Your task to perform on an android device: Open notification settings Image 0: 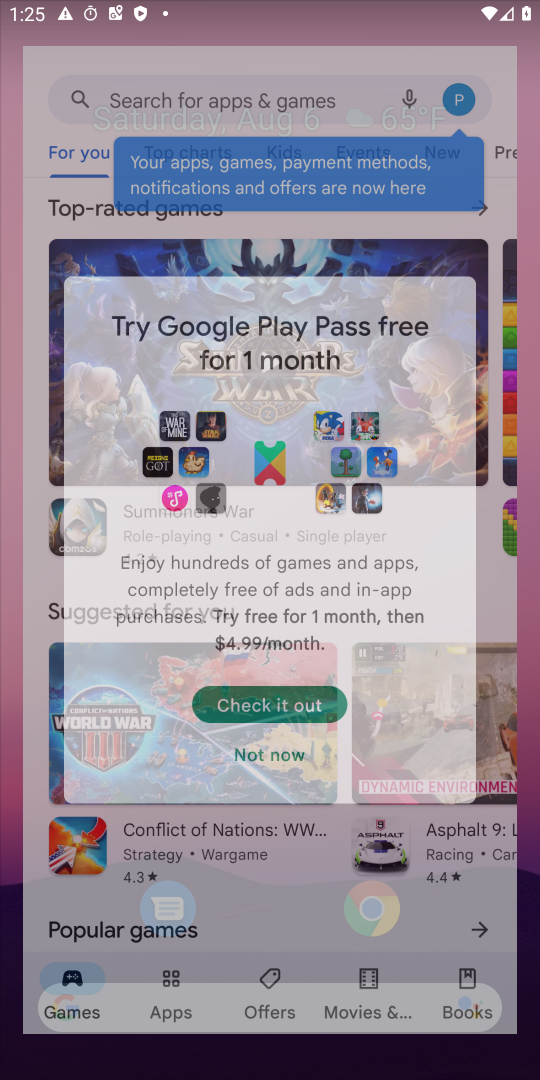
Step 0: press home button
Your task to perform on an android device: Open notification settings Image 1: 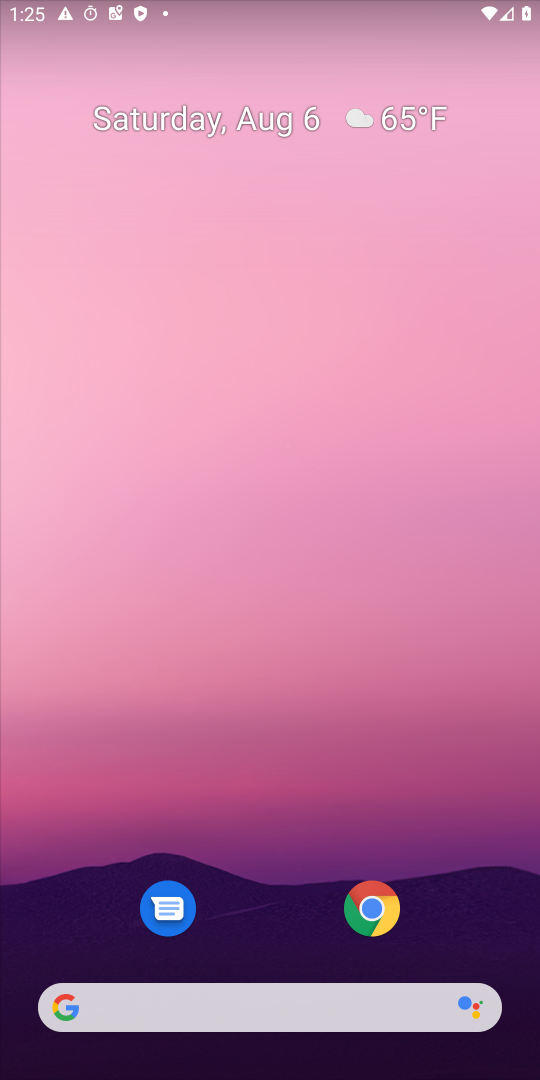
Step 1: drag from (238, 842) to (223, 115)
Your task to perform on an android device: Open notification settings Image 2: 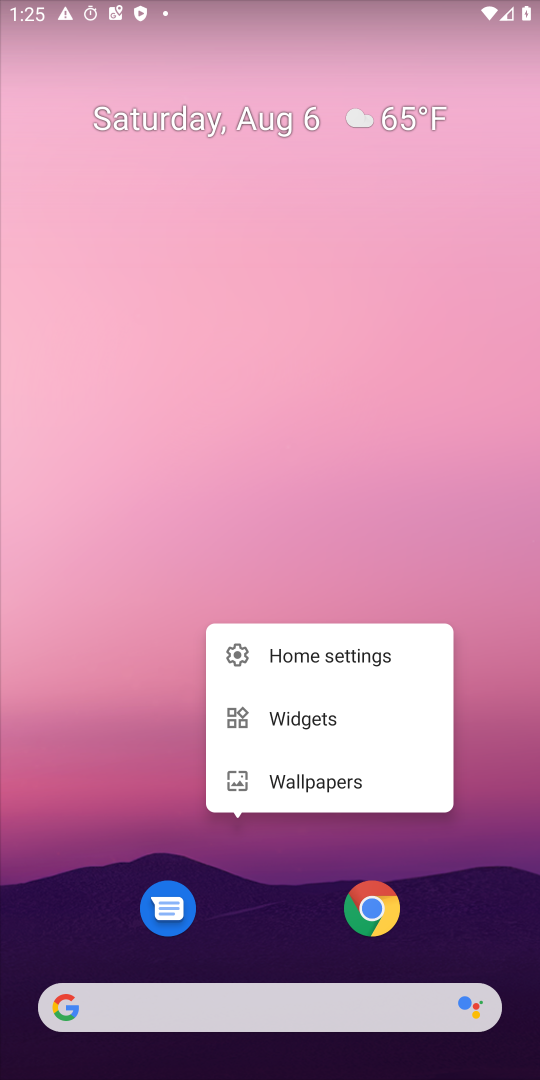
Step 2: click (306, 335)
Your task to perform on an android device: Open notification settings Image 3: 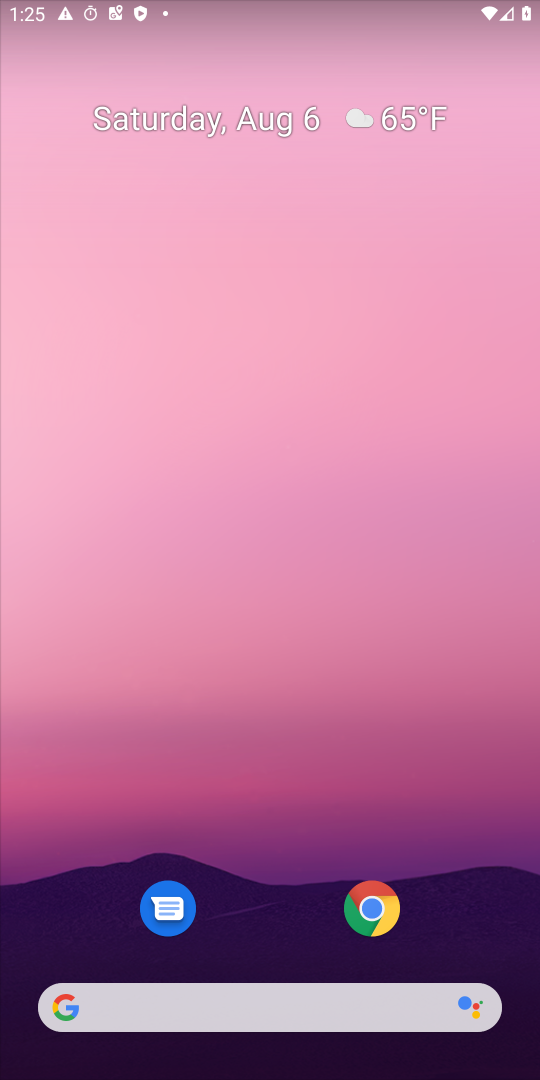
Step 3: drag from (248, 902) to (248, 48)
Your task to perform on an android device: Open notification settings Image 4: 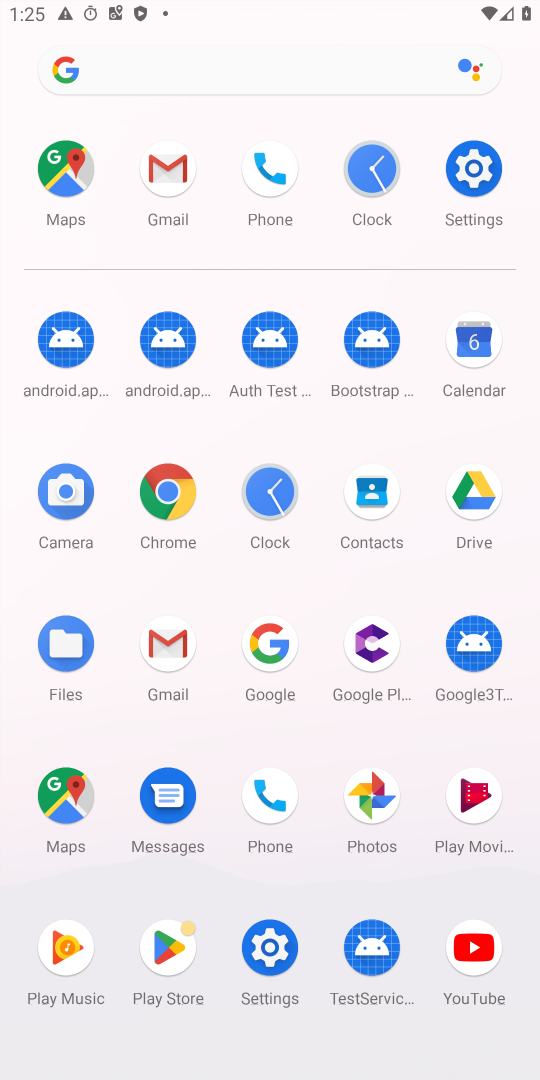
Step 4: click (272, 942)
Your task to perform on an android device: Open notification settings Image 5: 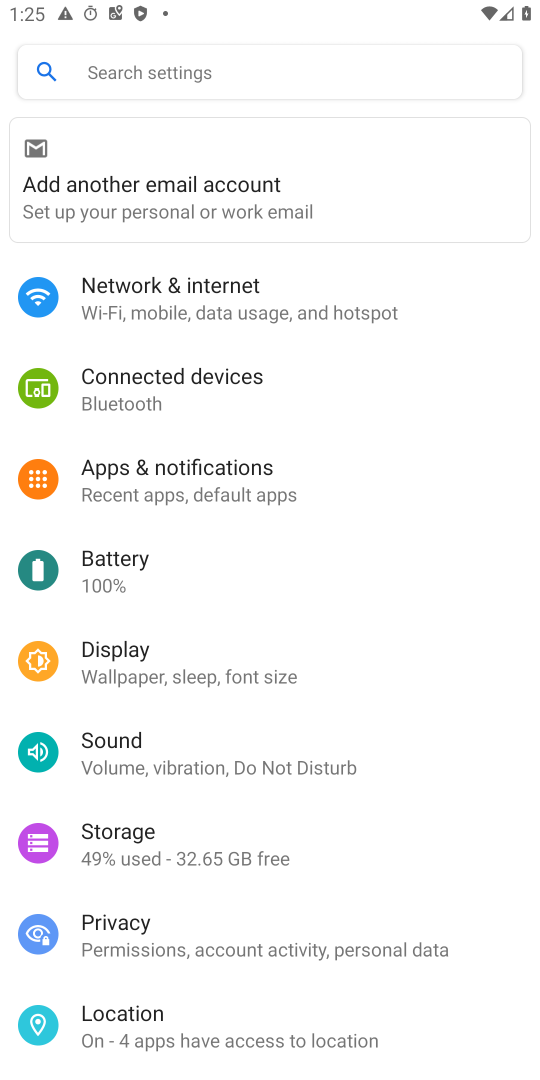
Step 5: click (171, 471)
Your task to perform on an android device: Open notification settings Image 6: 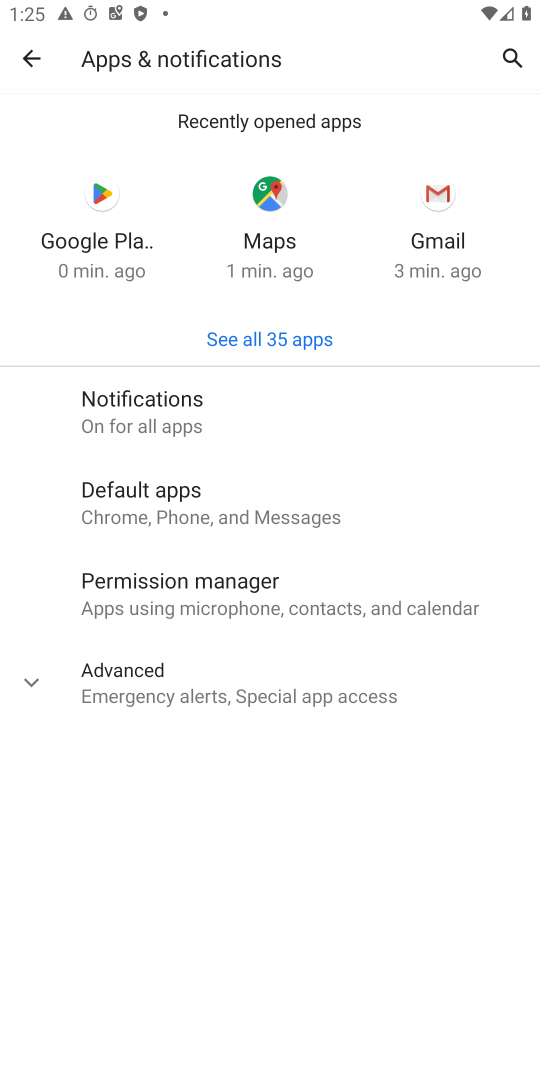
Step 6: click (245, 408)
Your task to perform on an android device: Open notification settings Image 7: 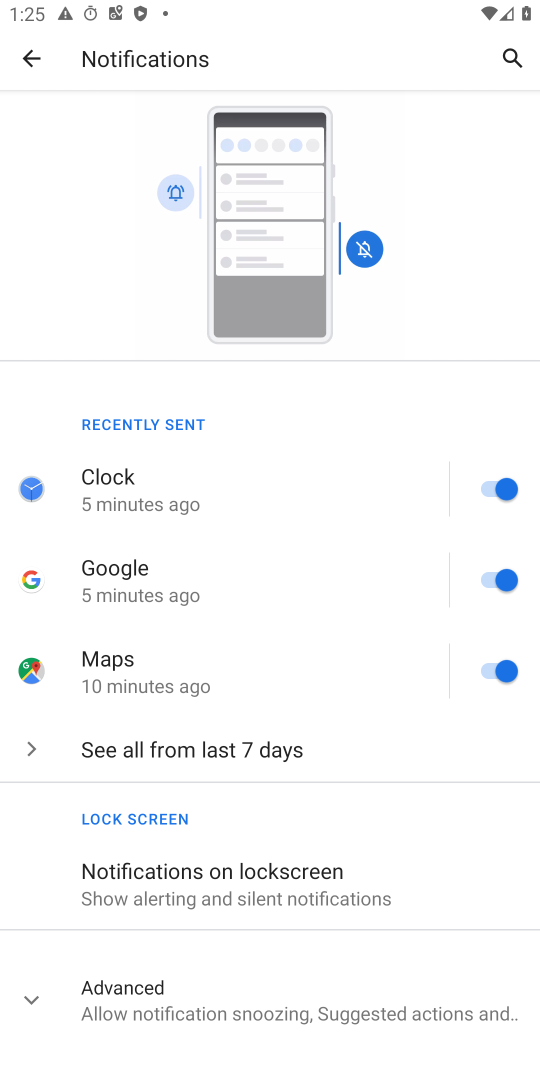
Step 7: task complete